Your task to perform on an android device: Clear all items from cart on amazon.com. Add "razer deathadder" to the cart on amazon.com, then select checkout. Image 0: 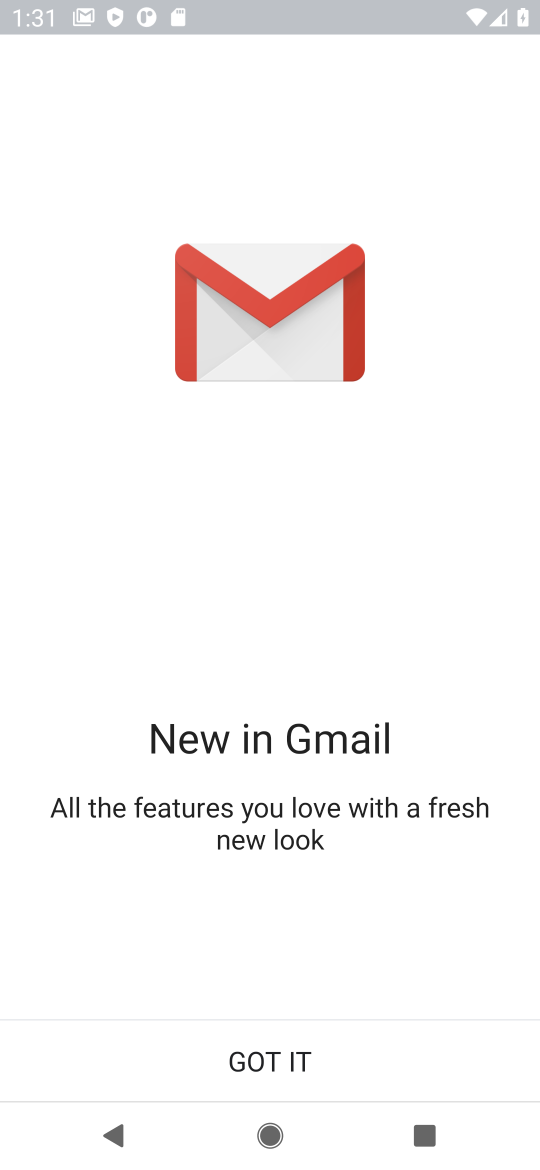
Step 0: press home button
Your task to perform on an android device: Clear all items from cart on amazon.com. Add "razer deathadder" to the cart on amazon.com, then select checkout. Image 1: 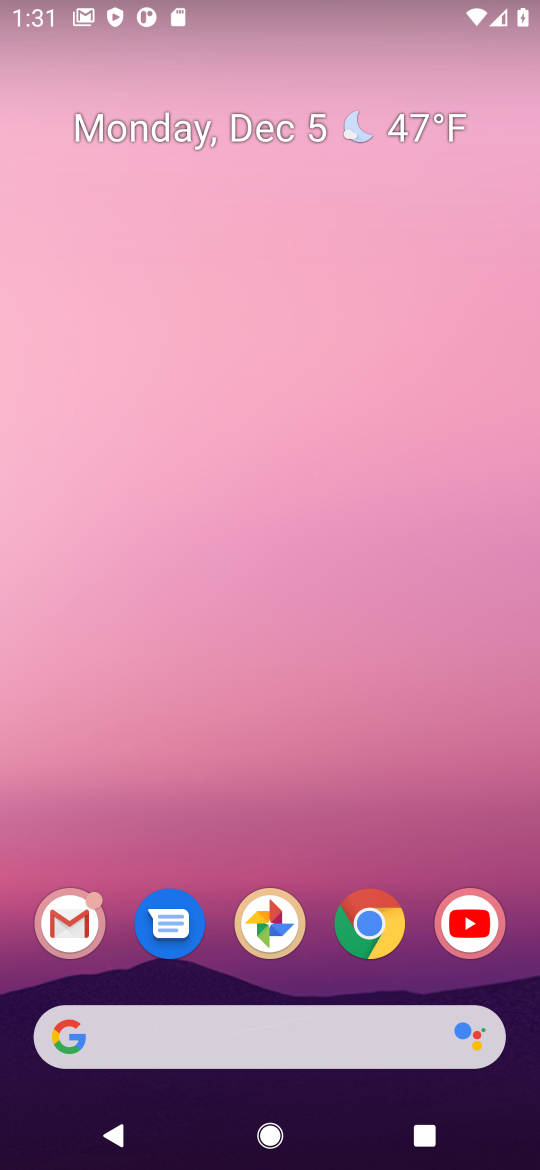
Step 1: click (279, 1034)
Your task to perform on an android device: Clear all items from cart on amazon.com. Add "razer deathadder" to the cart on amazon.com, then select checkout. Image 2: 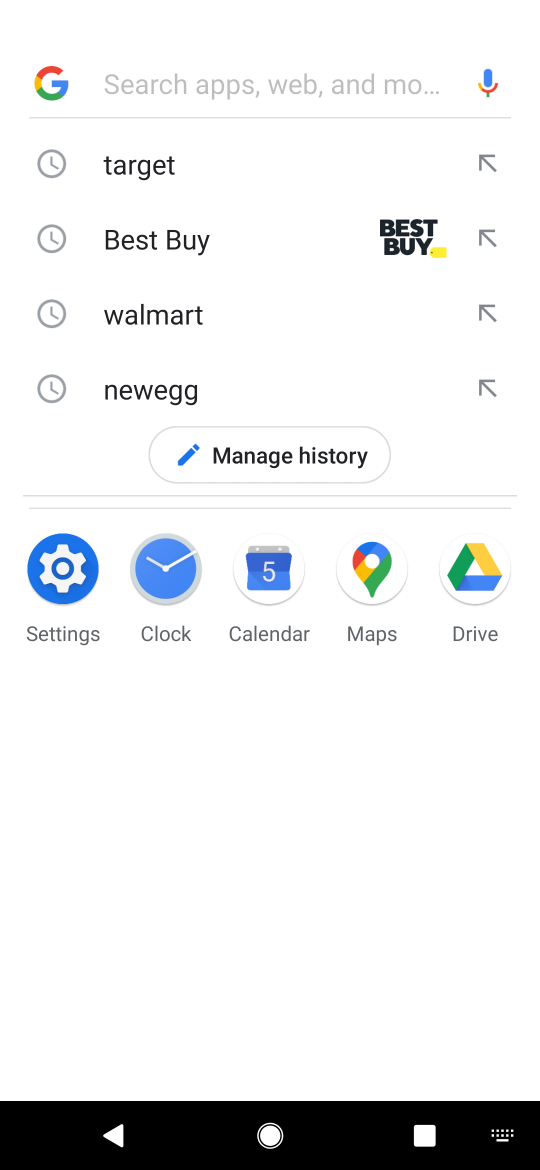
Step 2: type "amazon"
Your task to perform on an android device: Clear all items from cart on amazon.com. Add "razer deathadder" to the cart on amazon.com, then select checkout. Image 3: 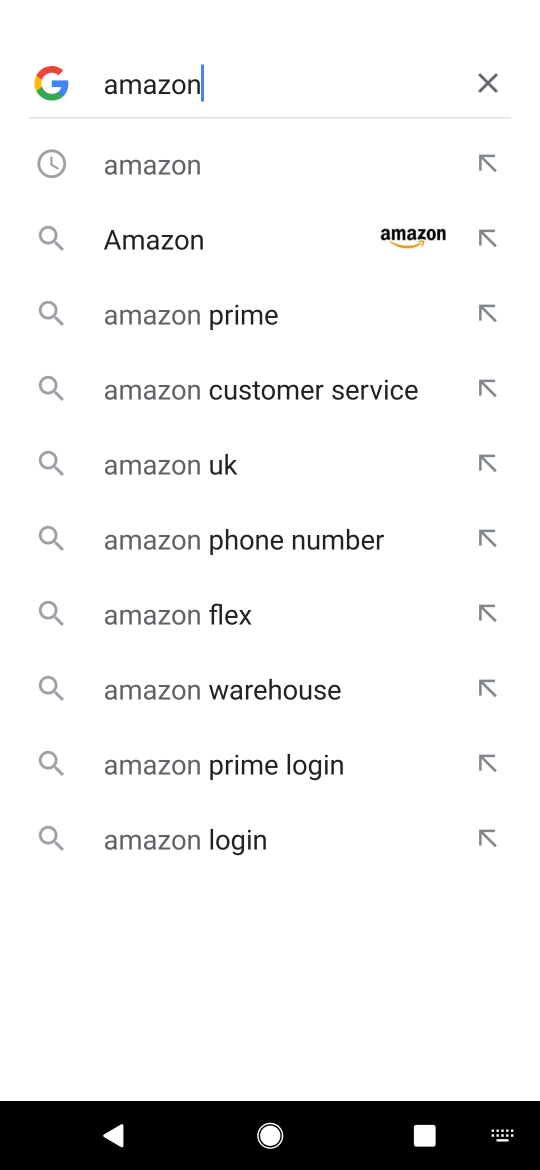
Step 3: click (176, 245)
Your task to perform on an android device: Clear all items from cart on amazon.com. Add "razer deathadder" to the cart on amazon.com, then select checkout. Image 4: 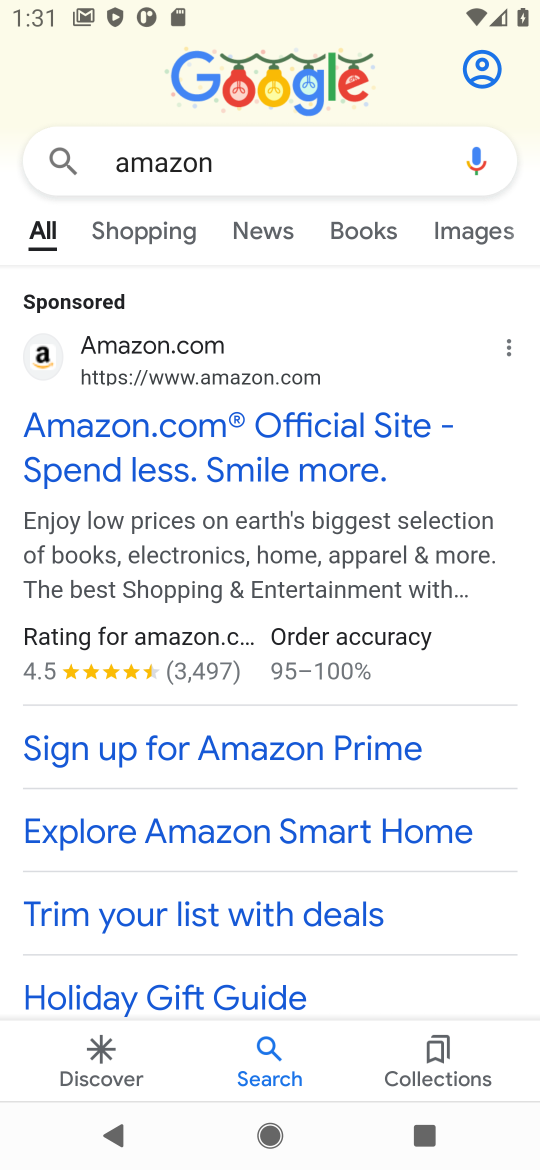
Step 4: click (139, 466)
Your task to perform on an android device: Clear all items from cart on amazon.com. Add "razer deathadder" to the cart on amazon.com, then select checkout. Image 5: 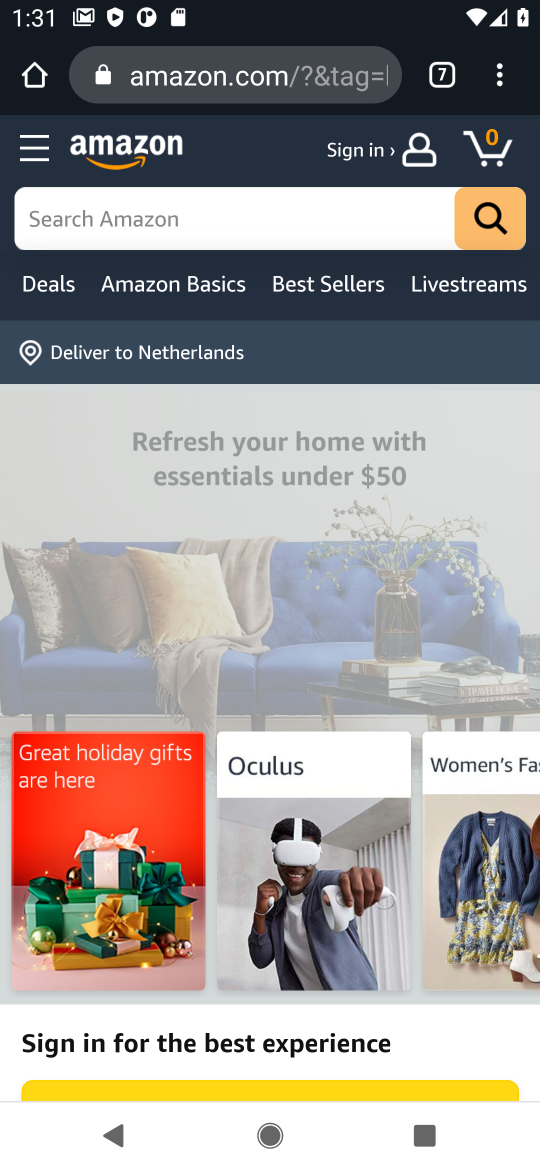
Step 5: click (49, 238)
Your task to perform on an android device: Clear all items from cart on amazon.com. Add "razer deathadder" to the cart on amazon.com, then select checkout. Image 6: 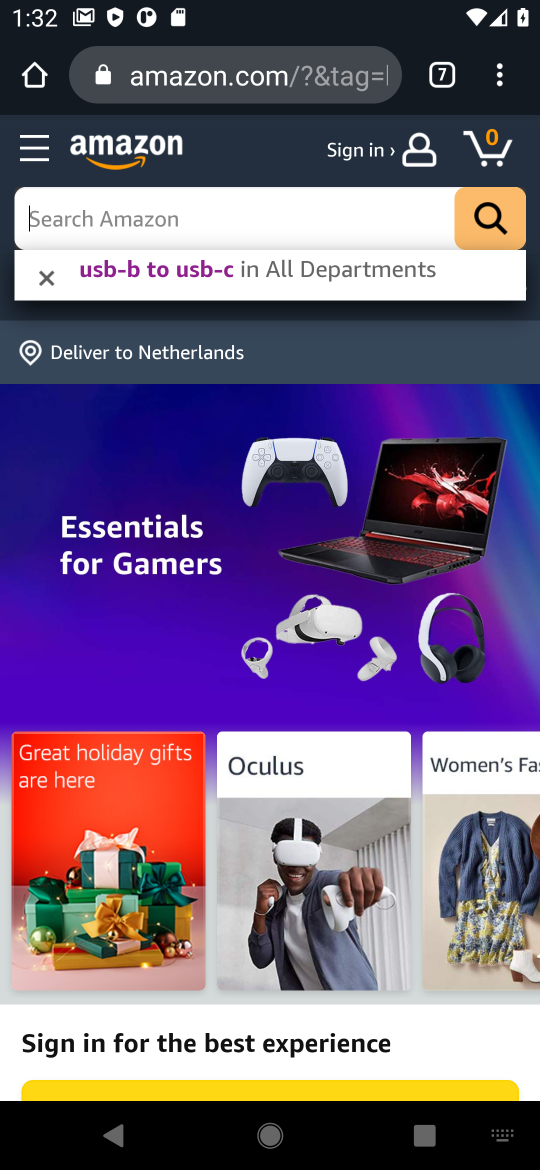
Step 6: type "razer deathadder\\"
Your task to perform on an android device: Clear all items from cart on amazon.com. Add "razer deathadder" to the cart on amazon.com, then select checkout. Image 7: 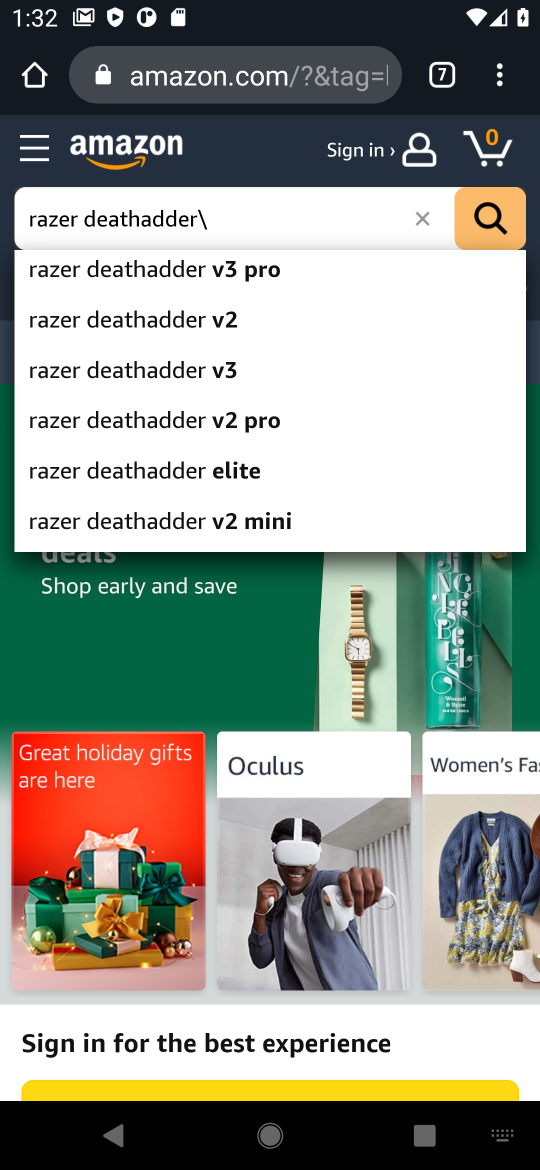
Step 7: click (201, 341)
Your task to perform on an android device: Clear all items from cart on amazon.com. Add "razer deathadder" to the cart on amazon.com, then select checkout. Image 8: 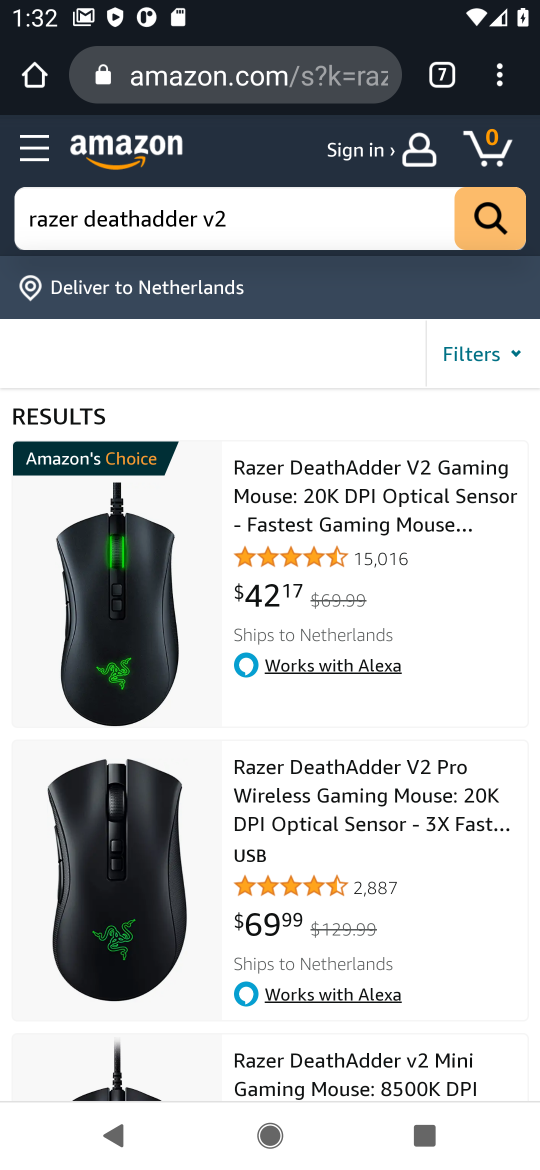
Step 8: click (274, 459)
Your task to perform on an android device: Clear all items from cart on amazon.com. Add "razer deathadder" to the cart on amazon.com, then select checkout. Image 9: 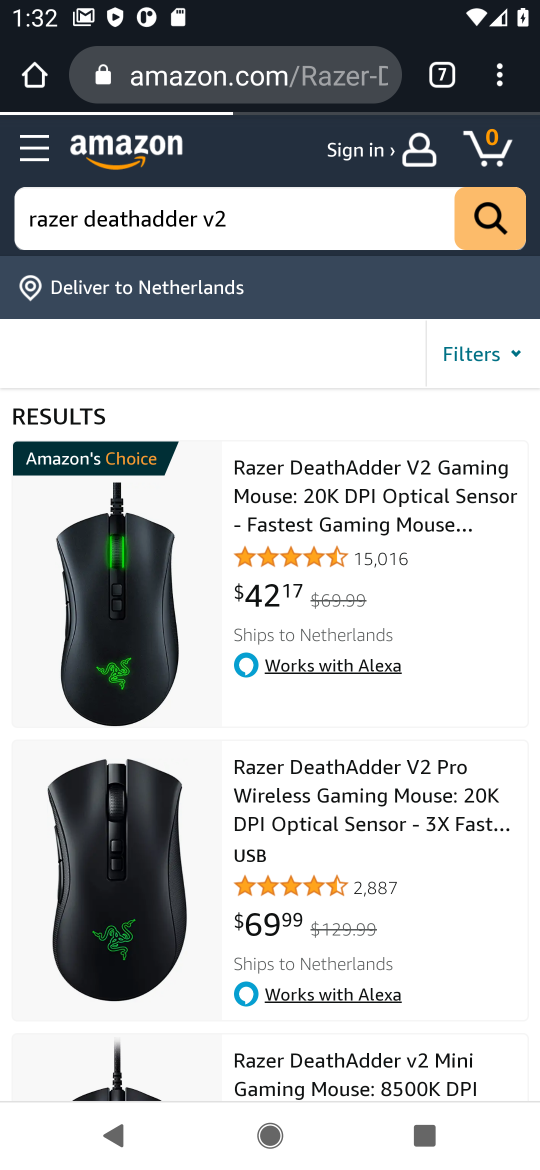
Step 9: task complete